Your task to perform on an android device: manage bookmarks in the chrome app Image 0: 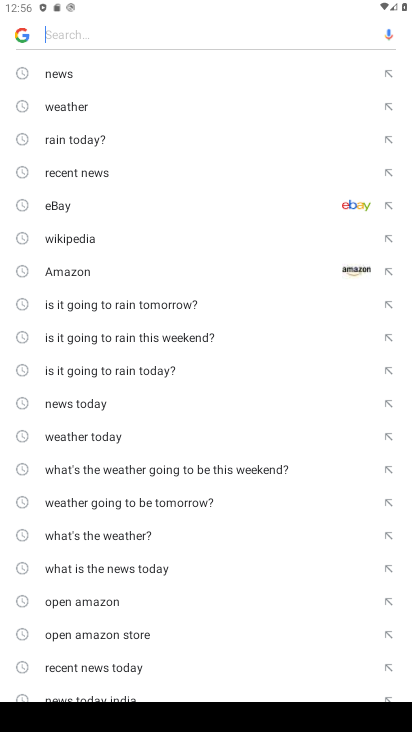
Step 0: task complete